Your task to perform on an android device: Open display settings Image 0: 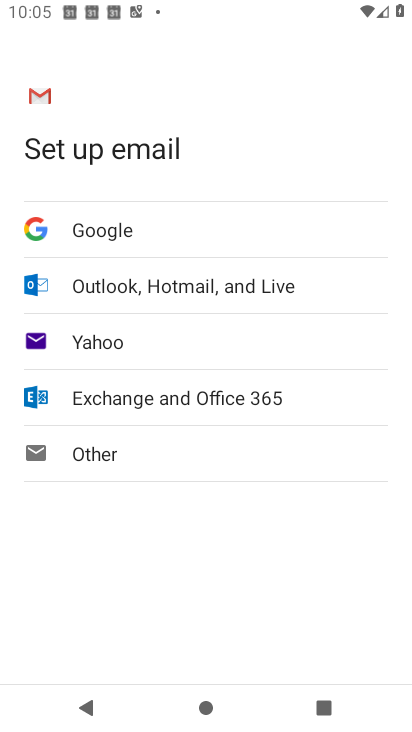
Step 0: press home button
Your task to perform on an android device: Open display settings Image 1: 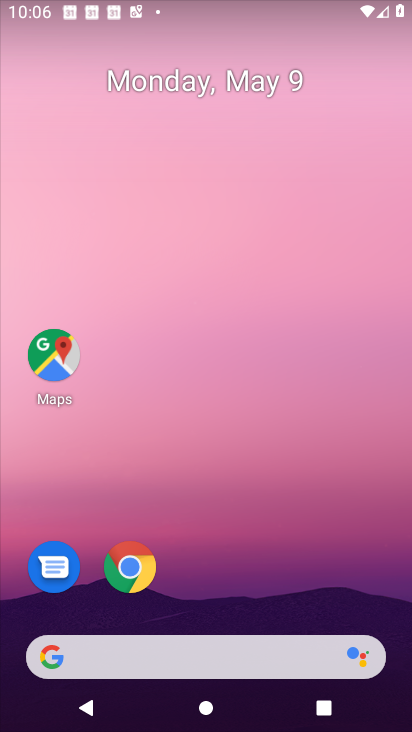
Step 1: drag from (158, 635) to (176, 138)
Your task to perform on an android device: Open display settings Image 2: 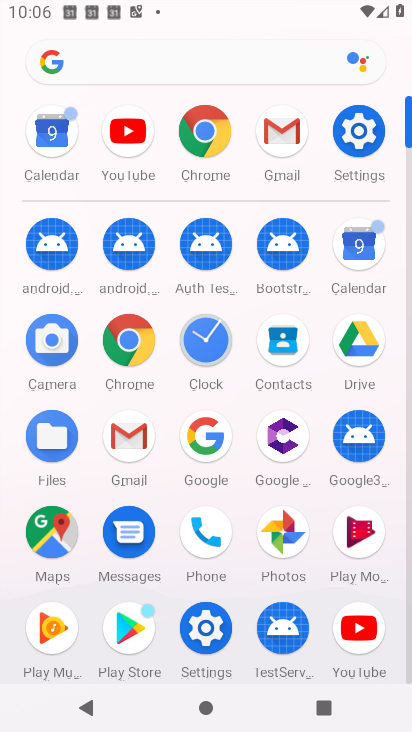
Step 2: click (192, 634)
Your task to perform on an android device: Open display settings Image 3: 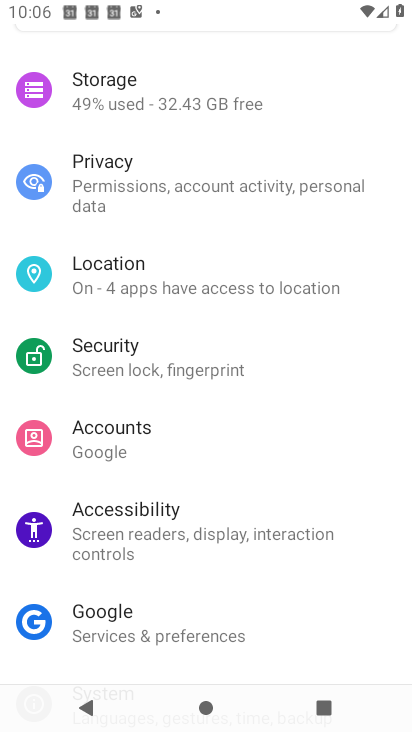
Step 3: drag from (142, 160) to (161, 416)
Your task to perform on an android device: Open display settings Image 4: 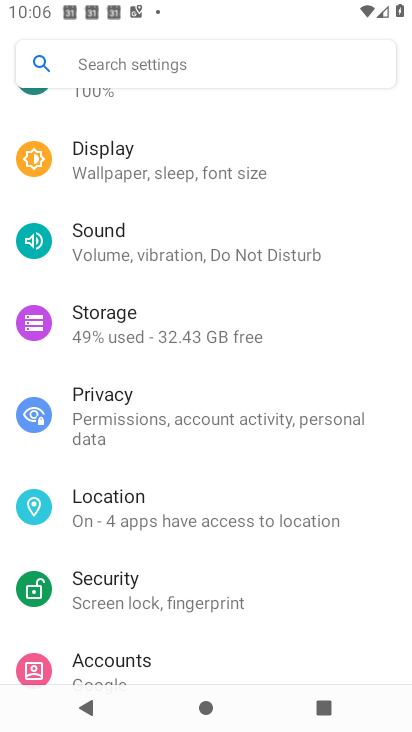
Step 4: click (139, 160)
Your task to perform on an android device: Open display settings Image 5: 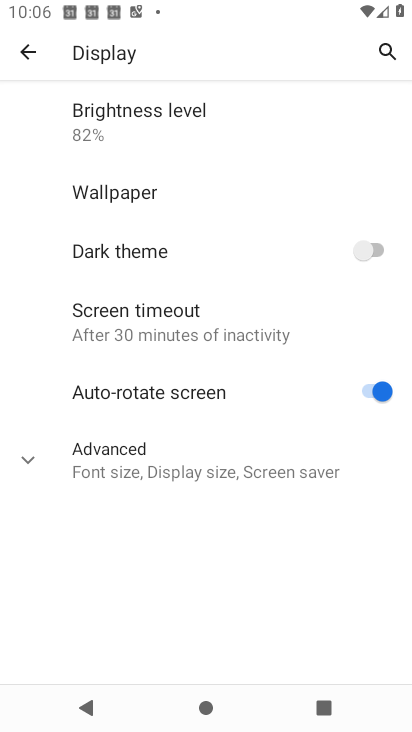
Step 5: task complete